Your task to perform on an android device: Open Google Chrome Image 0: 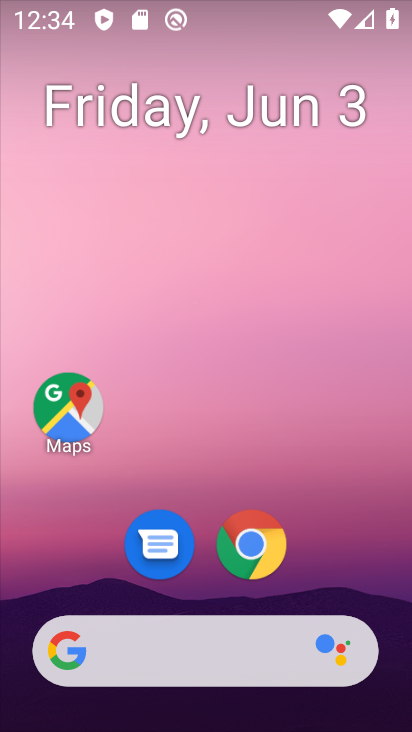
Step 0: click (258, 541)
Your task to perform on an android device: Open Google Chrome Image 1: 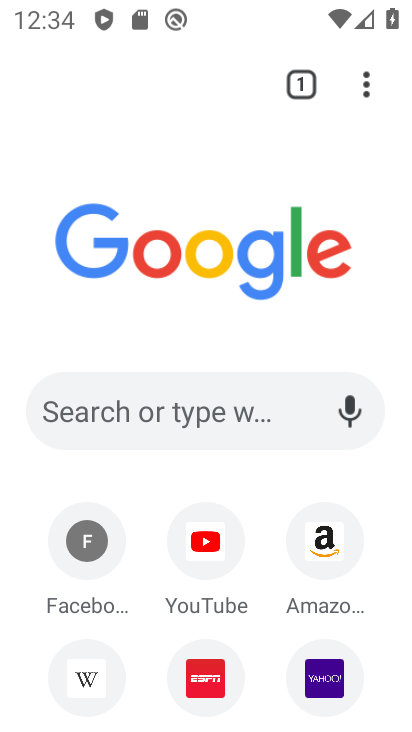
Step 1: task complete